Your task to perform on an android device: toggle notification dots Image 0: 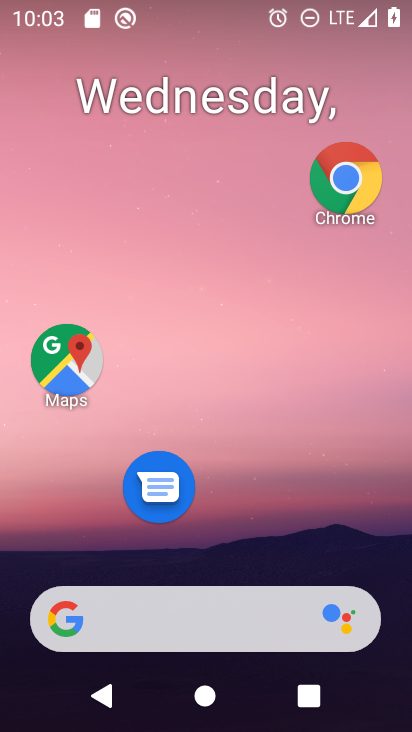
Step 0: drag from (213, 531) to (245, 7)
Your task to perform on an android device: toggle notification dots Image 1: 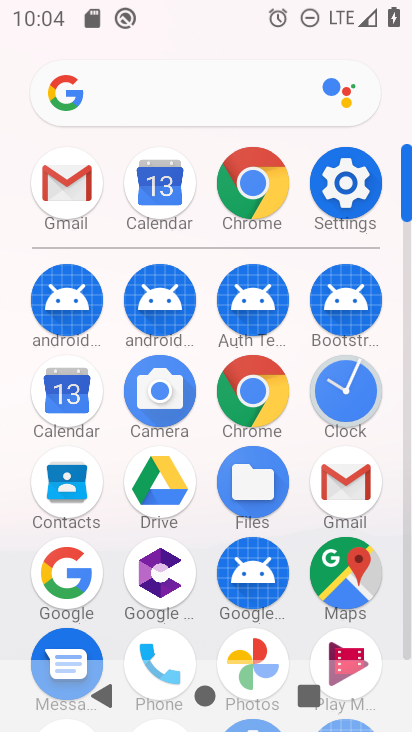
Step 1: click (343, 199)
Your task to perform on an android device: toggle notification dots Image 2: 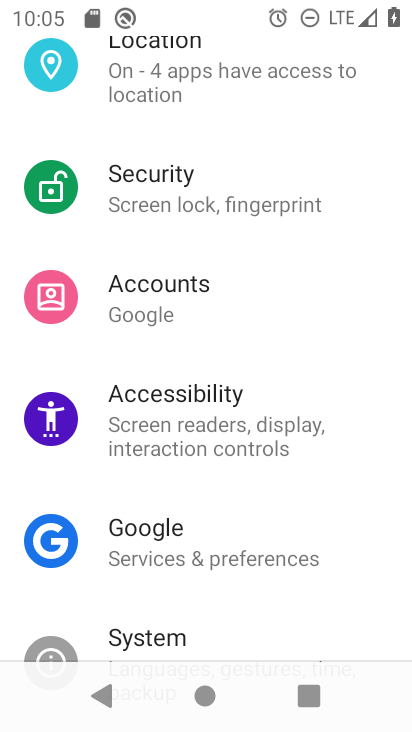
Step 2: drag from (189, 285) to (169, 644)
Your task to perform on an android device: toggle notification dots Image 3: 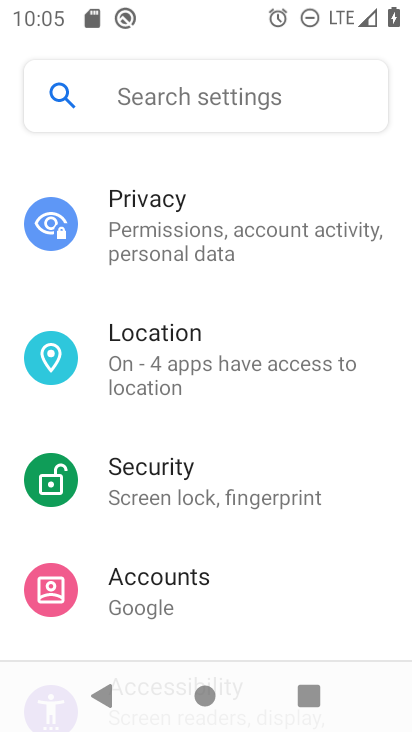
Step 3: drag from (195, 240) to (194, 628)
Your task to perform on an android device: toggle notification dots Image 4: 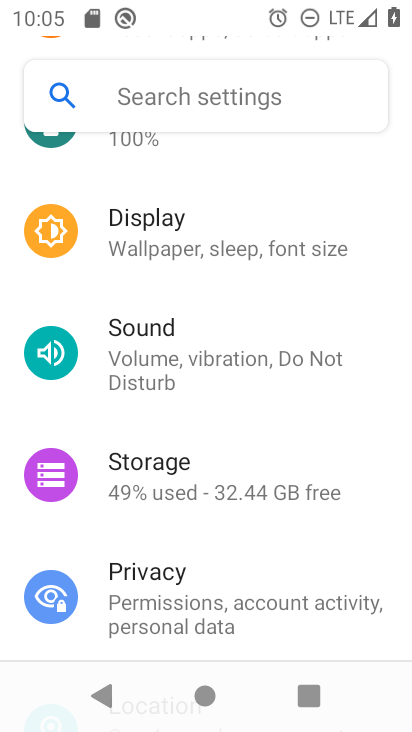
Step 4: drag from (163, 269) to (163, 595)
Your task to perform on an android device: toggle notification dots Image 5: 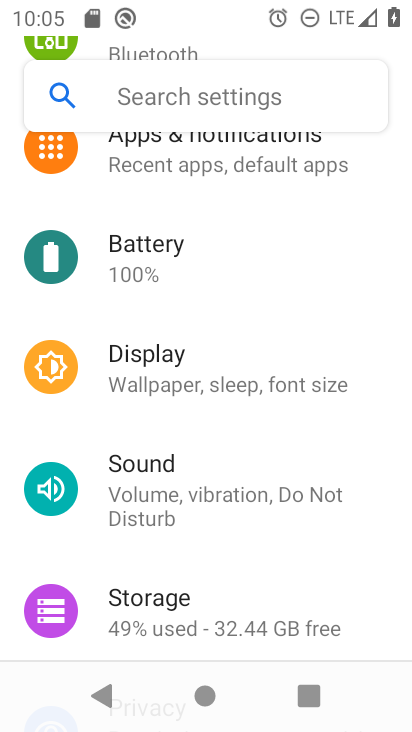
Step 5: drag from (223, 266) to (227, 543)
Your task to perform on an android device: toggle notification dots Image 6: 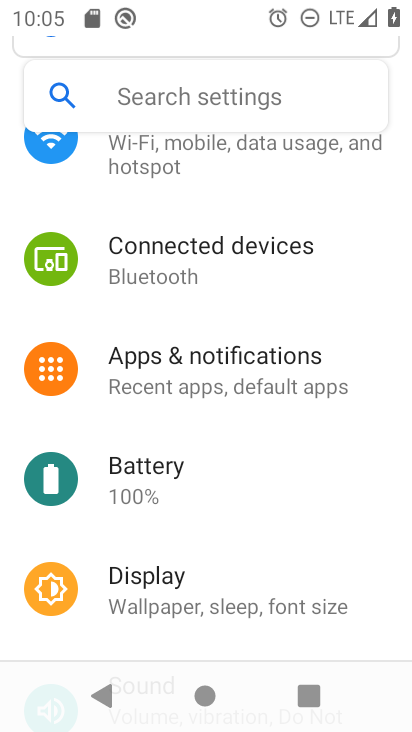
Step 6: click (279, 378)
Your task to perform on an android device: toggle notification dots Image 7: 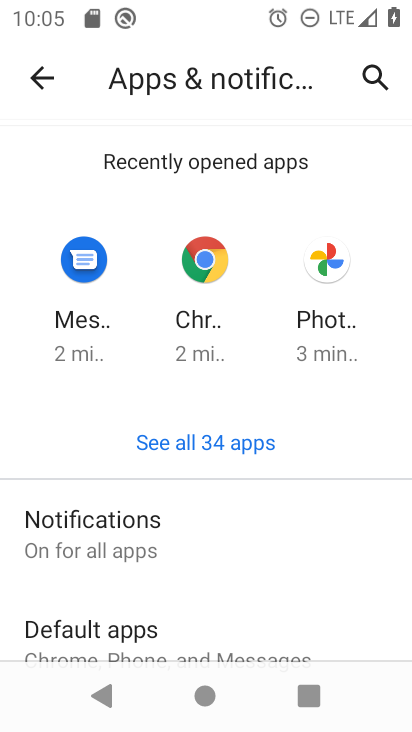
Step 7: click (171, 545)
Your task to perform on an android device: toggle notification dots Image 8: 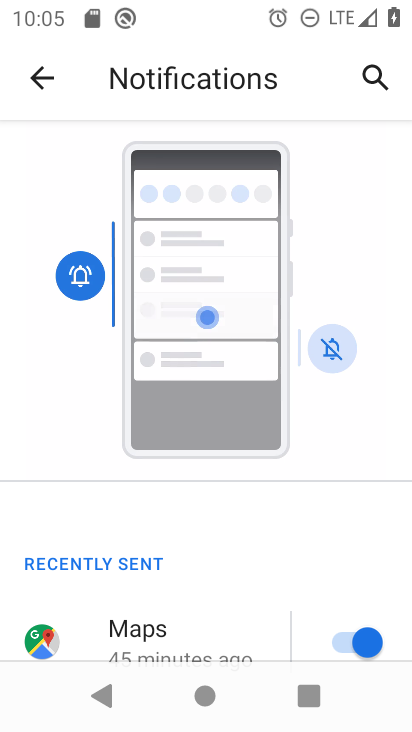
Step 8: drag from (160, 567) to (168, 287)
Your task to perform on an android device: toggle notification dots Image 9: 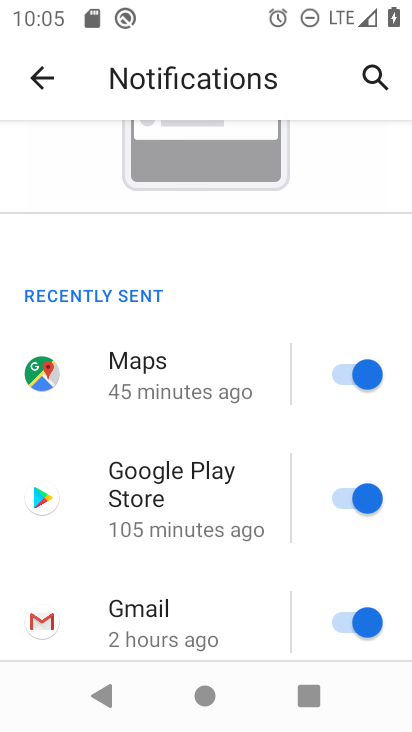
Step 9: drag from (174, 541) to (203, 192)
Your task to perform on an android device: toggle notification dots Image 10: 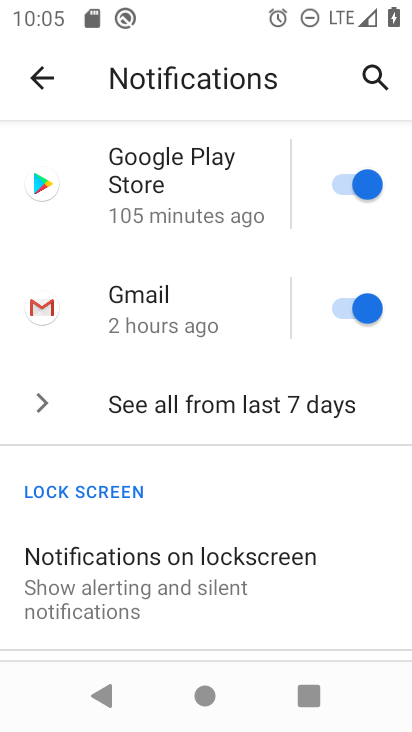
Step 10: drag from (180, 590) to (156, 308)
Your task to perform on an android device: toggle notification dots Image 11: 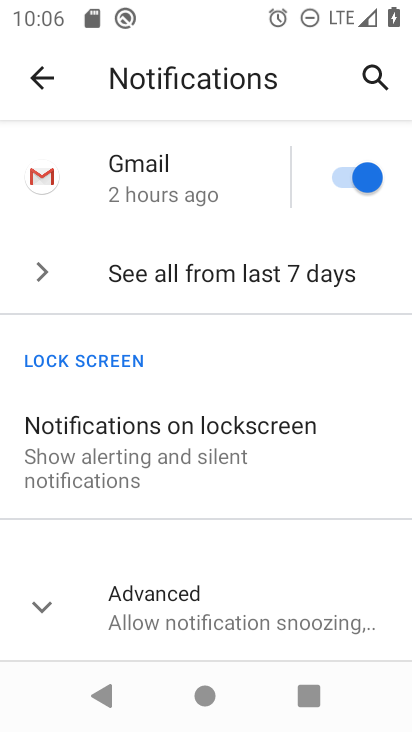
Step 11: click (161, 615)
Your task to perform on an android device: toggle notification dots Image 12: 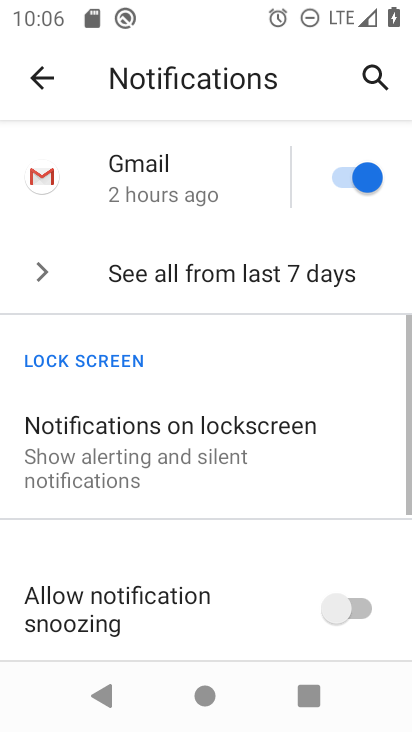
Step 12: drag from (165, 502) to (175, 122)
Your task to perform on an android device: toggle notification dots Image 13: 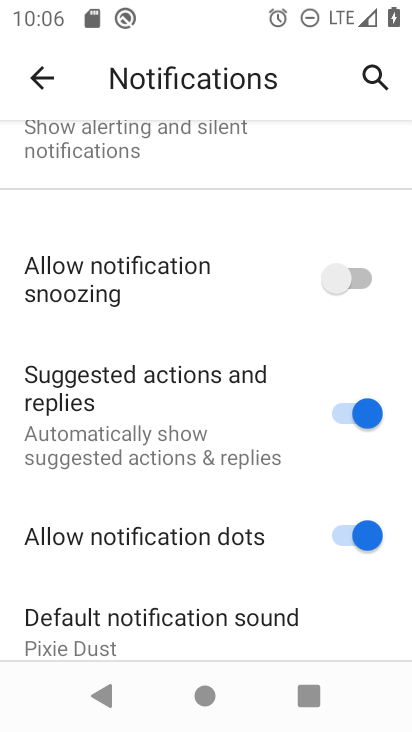
Step 13: drag from (176, 566) to (178, 240)
Your task to perform on an android device: toggle notification dots Image 14: 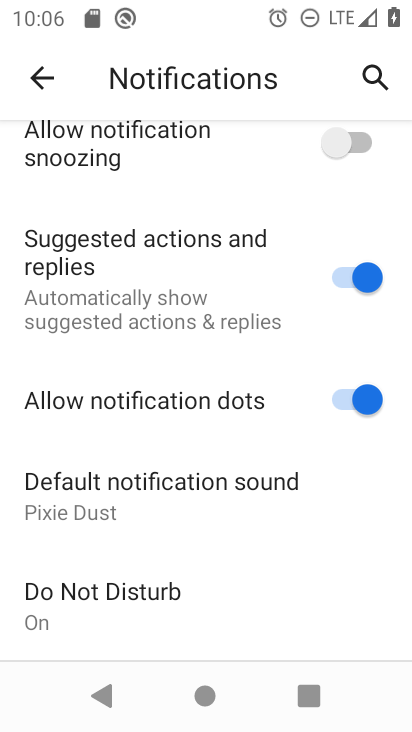
Step 14: click (250, 402)
Your task to perform on an android device: toggle notification dots Image 15: 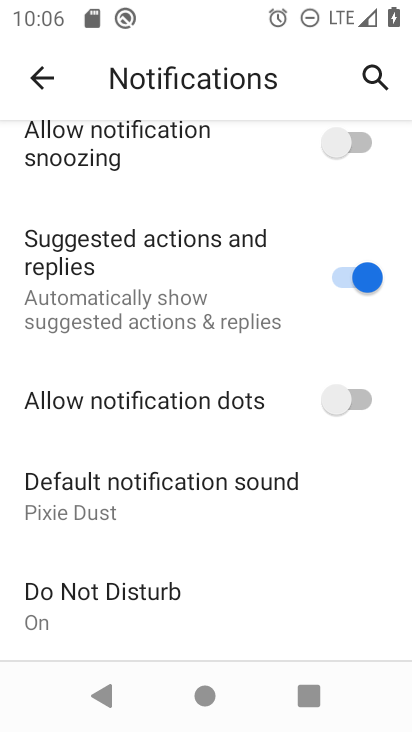
Step 15: task complete